Your task to perform on an android device: Open Yahoo.com Image 0: 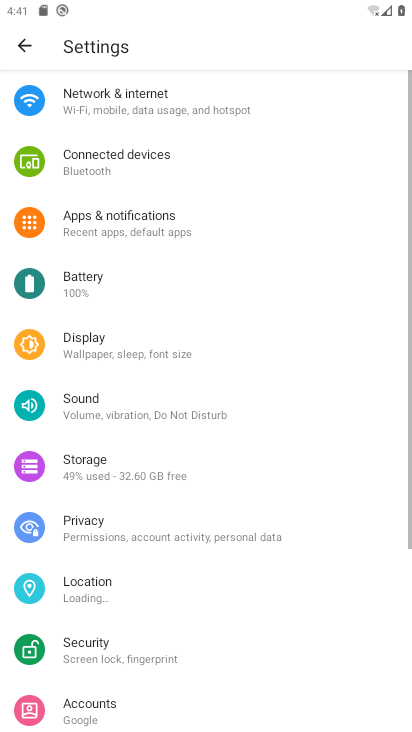
Step 0: press home button
Your task to perform on an android device: Open Yahoo.com Image 1: 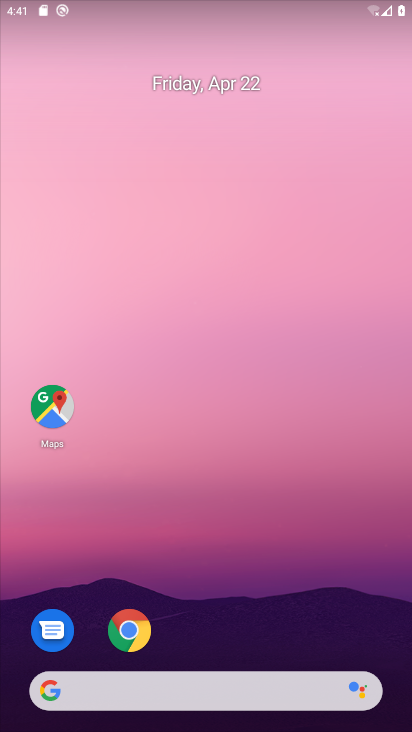
Step 1: click (142, 629)
Your task to perform on an android device: Open Yahoo.com Image 2: 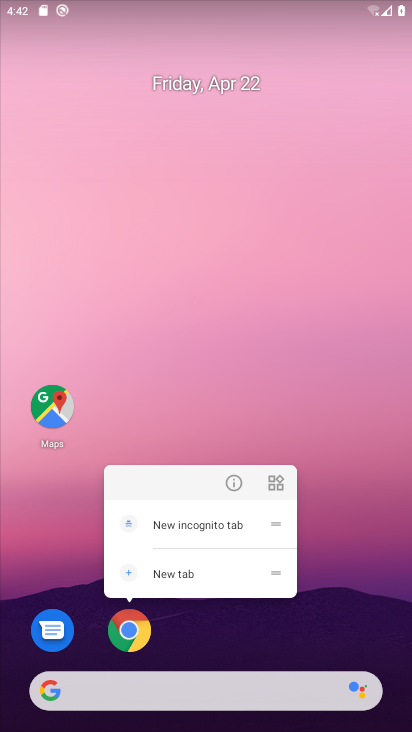
Step 2: click (145, 626)
Your task to perform on an android device: Open Yahoo.com Image 3: 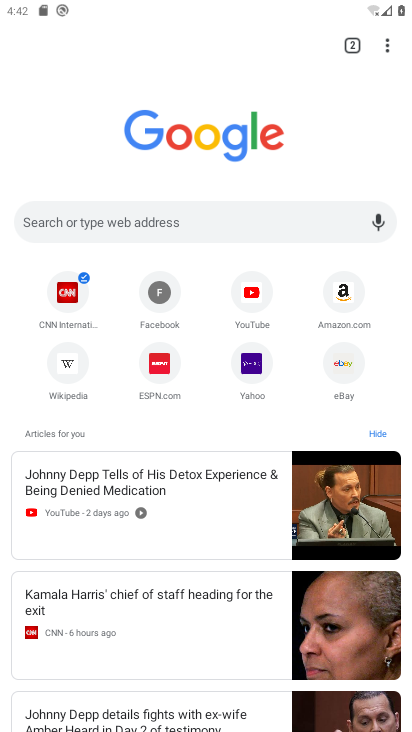
Step 3: click (251, 369)
Your task to perform on an android device: Open Yahoo.com Image 4: 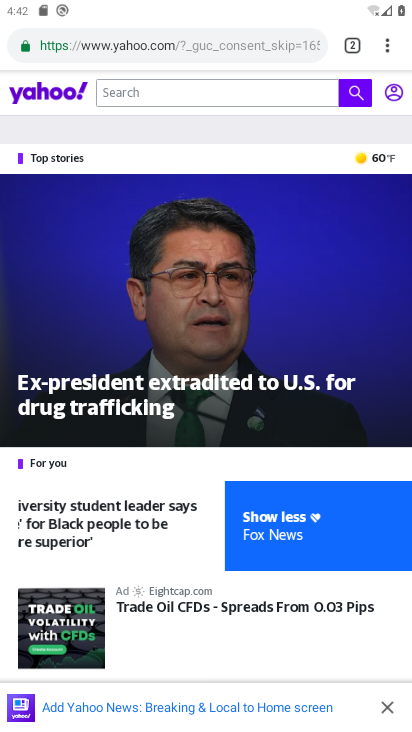
Step 4: task complete